Your task to perform on an android device: Open ESPN.com Image 0: 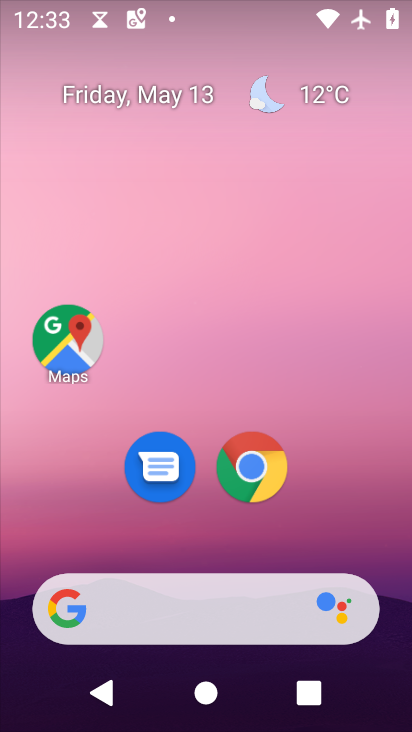
Step 0: click (240, 464)
Your task to perform on an android device: Open ESPN.com Image 1: 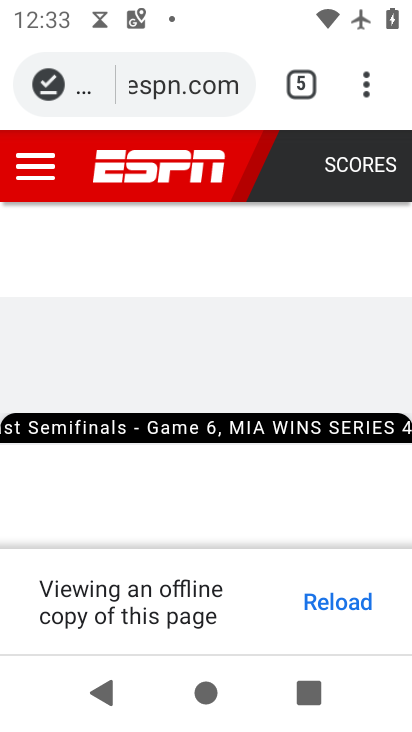
Step 1: task complete